Your task to perform on an android device: toggle show notifications on the lock screen Image 0: 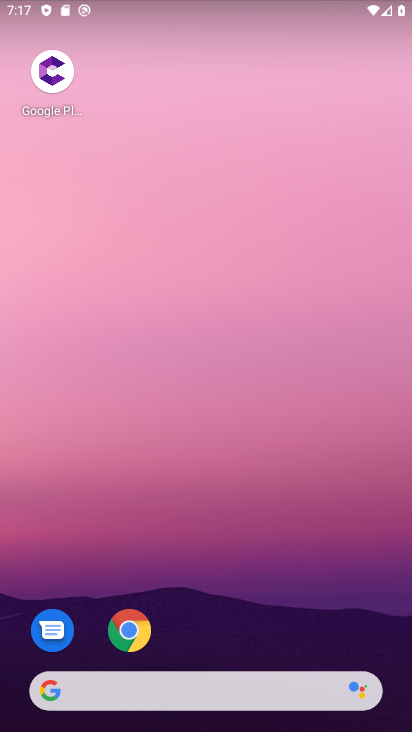
Step 0: drag from (189, 690) to (225, 64)
Your task to perform on an android device: toggle show notifications on the lock screen Image 1: 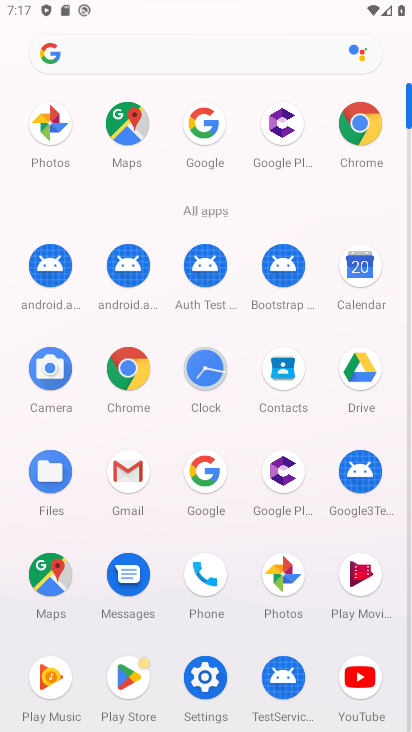
Step 1: click (203, 679)
Your task to perform on an android device: toggle show notifications on the lock screen Image 2: 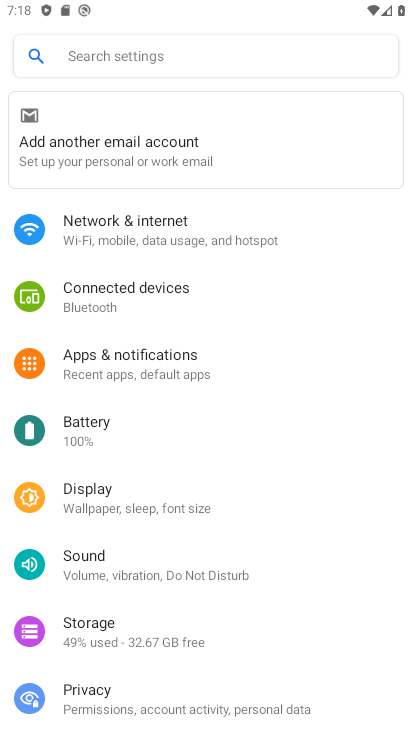
Step 2: click (168, 367)
Your task to perform on an android device: toggle show notifications on the lock screen Image 3: 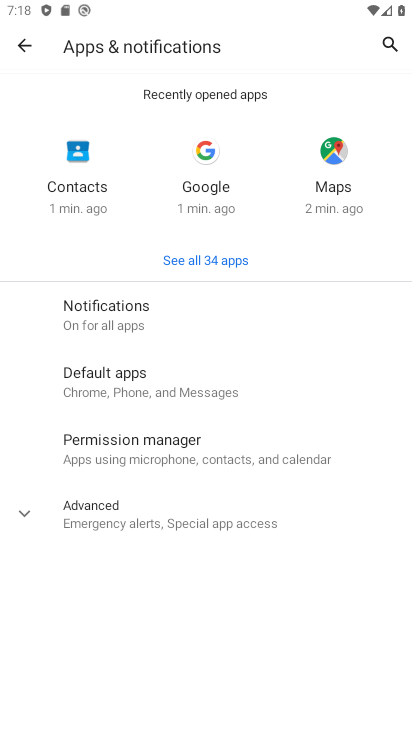
Step 3: click (108, 307)
Your task to perform on an android device: toggle show notifications on the lock screen Image 4: 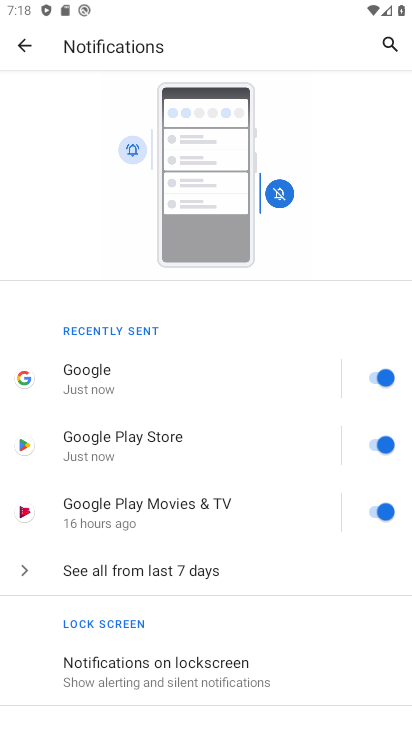
Step 4: click (118, 675)
Your task to perform on an android device: toggle show notifications on the lock screen Image 5: 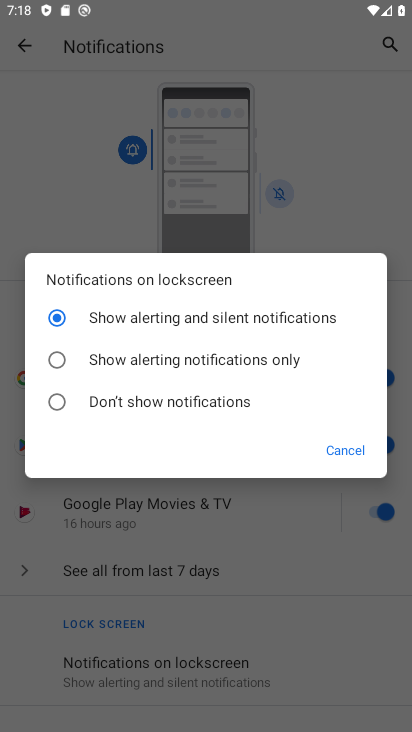
Step 5: click (54, 402)
Your task to perform on an android device: toggle show notifications on the lock screen Image 6: 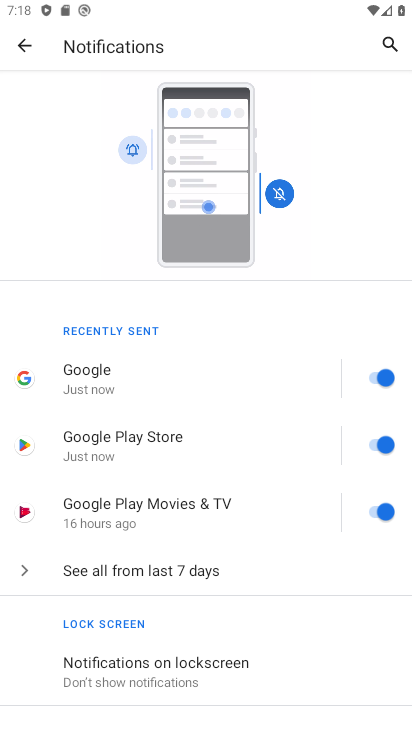
Step 6: task complete